Your task to perform on an android device: turn notification dots off Image 0: 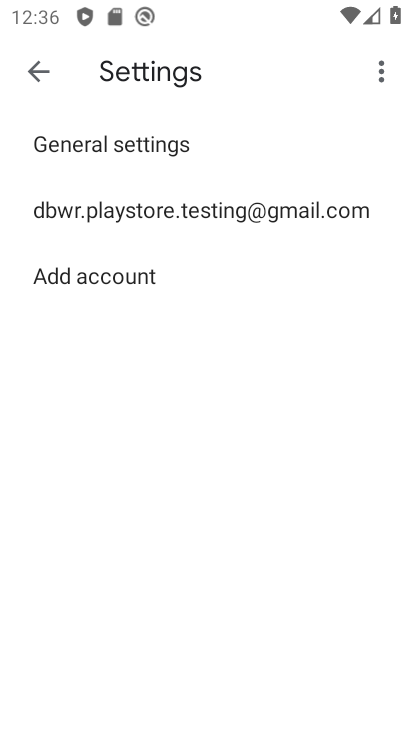
Step 0: press home button
Your task to perform on an android device: turn notification dots off Image 1: 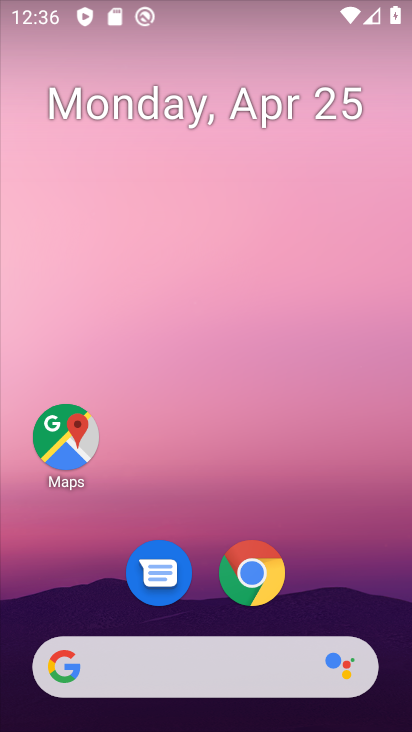
Step 1: drag from (197, 619) to (219, 57)
Your task to perform on an android device: turn notification dots off Image 2: 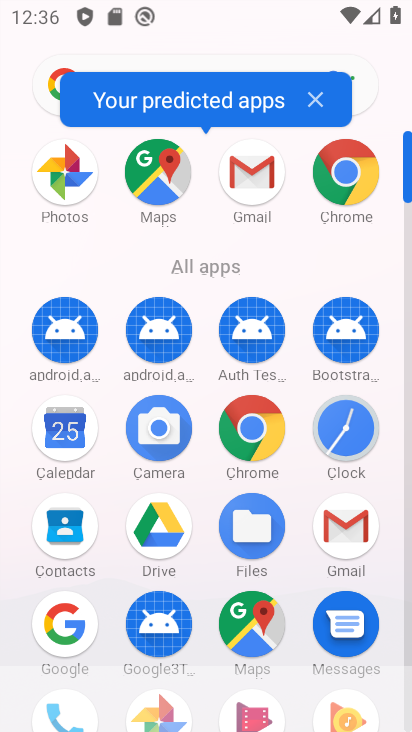
Step 2: drag from (210, 638) to (215, 256)
Your task to perform on an android device: turn notification dots off Image 3: 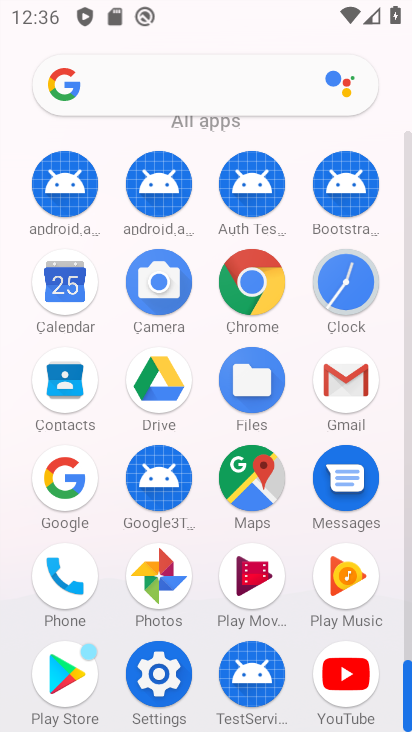
Step 3: click (136, 687)
Your task to perform on an android device: turn notification dots off Image 4: 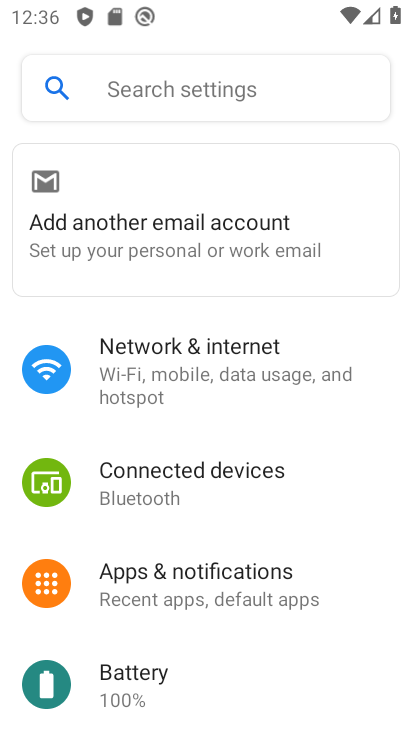
Step 4: click (212, 587)
Your task to perform on an android device: turn notification dots off Image 5: 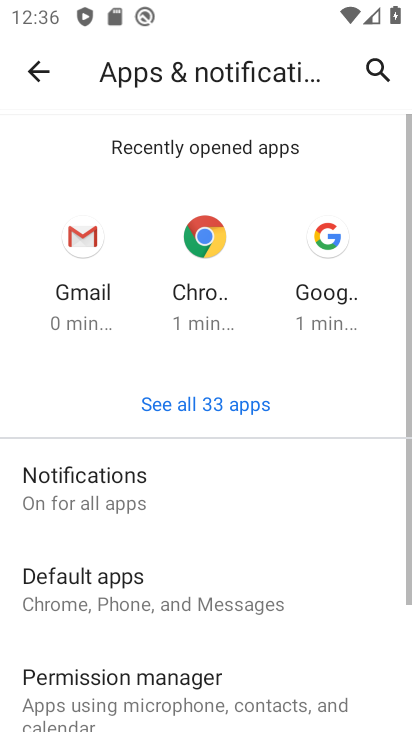
Step 5: click (144, 498)
Your task to perform on an android device: turn notification dots off Image 6: 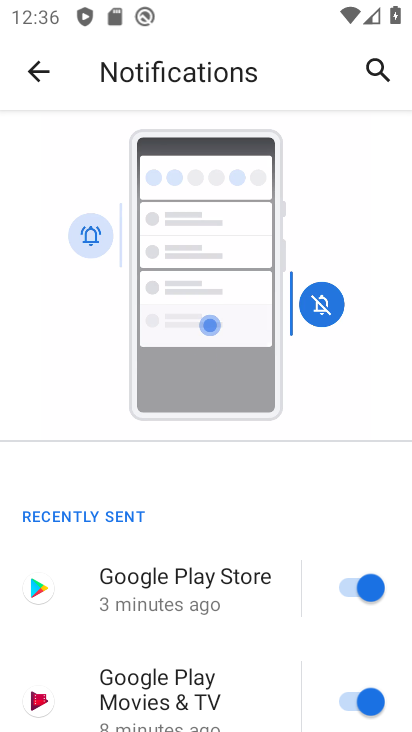
Step 6: drag from (236, 675) to (236, 158)
Your task to perform on an android device: turn notification dots off Image 7: 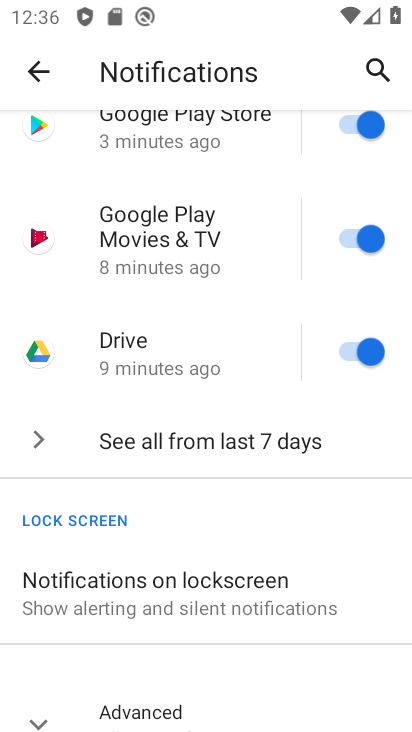
Step 7: click (176, 706)
Your task to perform on an android device: turn notification dots off Image 8: 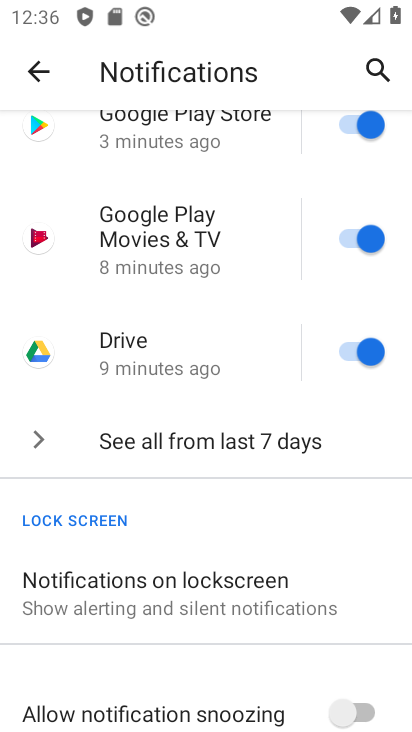
Step 8: drag from (208, 655) to (218, 430)
Your task to perform on an android device: turn notification dots off Image 9: 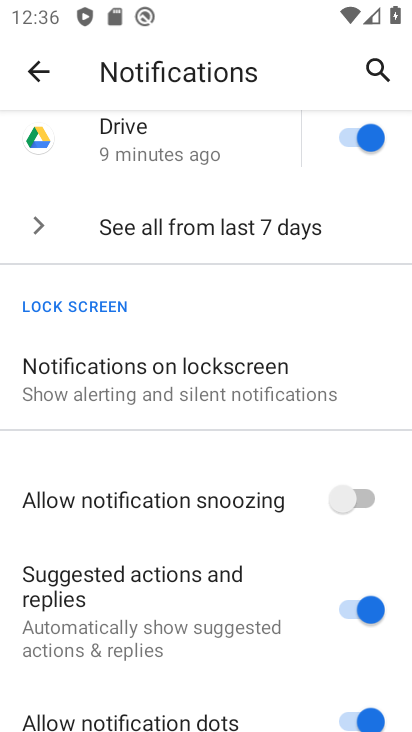
Step 9: click (362, 717)
Your task to perform on an android device: turn notification dots off Image 10: 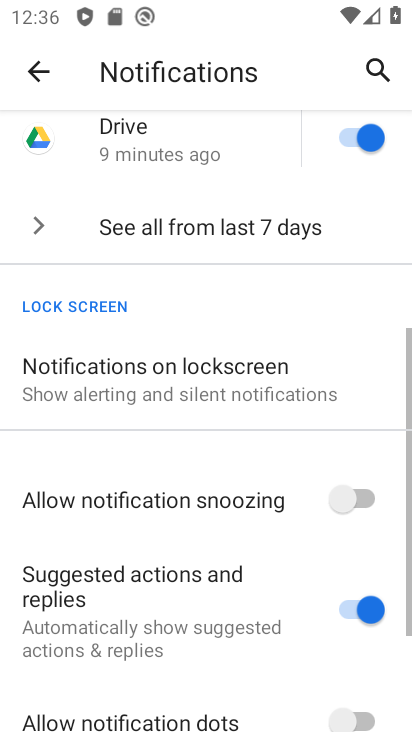
Step 10: task complete